Your task to perform on an android device: Go to Maps Image 0: 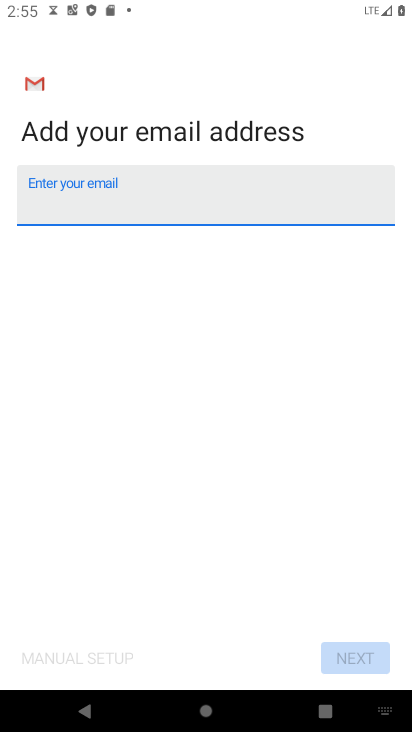
Step 0: press home button
Your task to perform on an android device: Go to Maps Image 1: 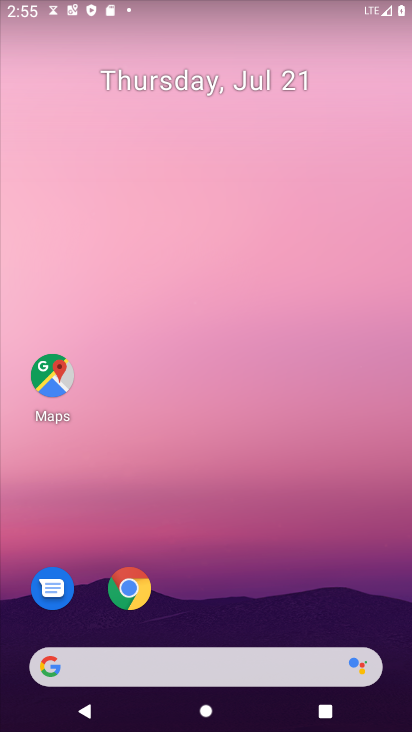
Step 1: drag from (205, 542) to (252, 252)
Your task to perform on an android device: Go to Maps Image 2: 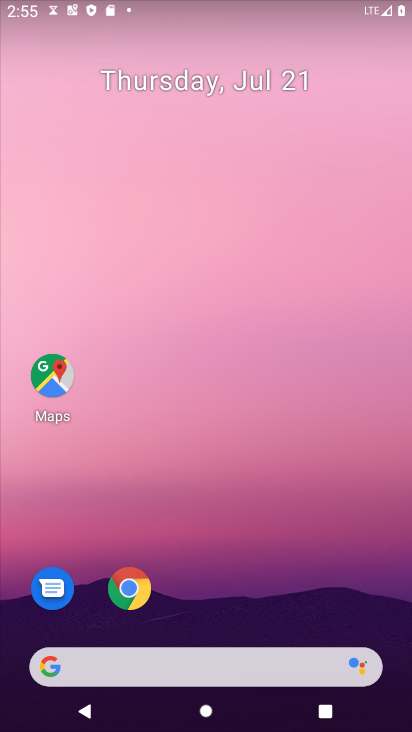
Step 2: drag from (164, 594) to (203, 269)
Your task to perform on an android device: Go to Maps Image 3: 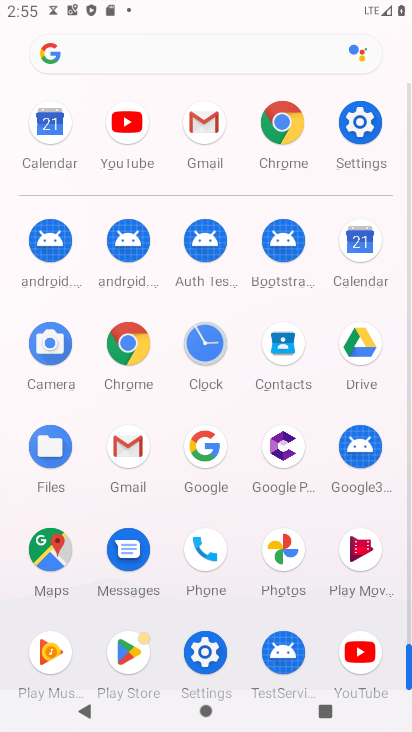
Step 3: click (57, 544)
Your task to perform on an android device: Go to Maps Image 4: 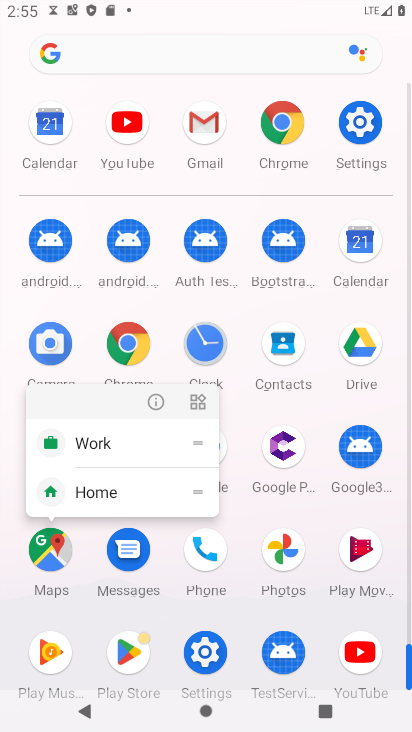
Step 4: click (153, 402)
Your task to perform on an android device: Go to Maps Image 5: 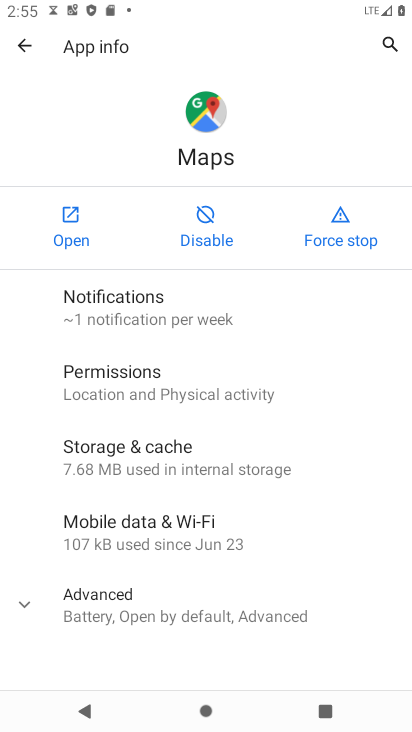
Step 5: click (74, 240)
Your task to perform on an android device: Go to Maps Image 6: 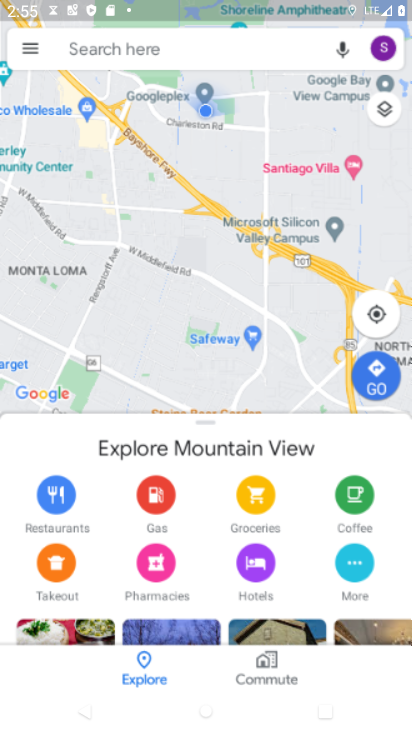
Step 6: task complete